Your task to perform on an android device: open app "Microsoft Authenticator" Image 0: 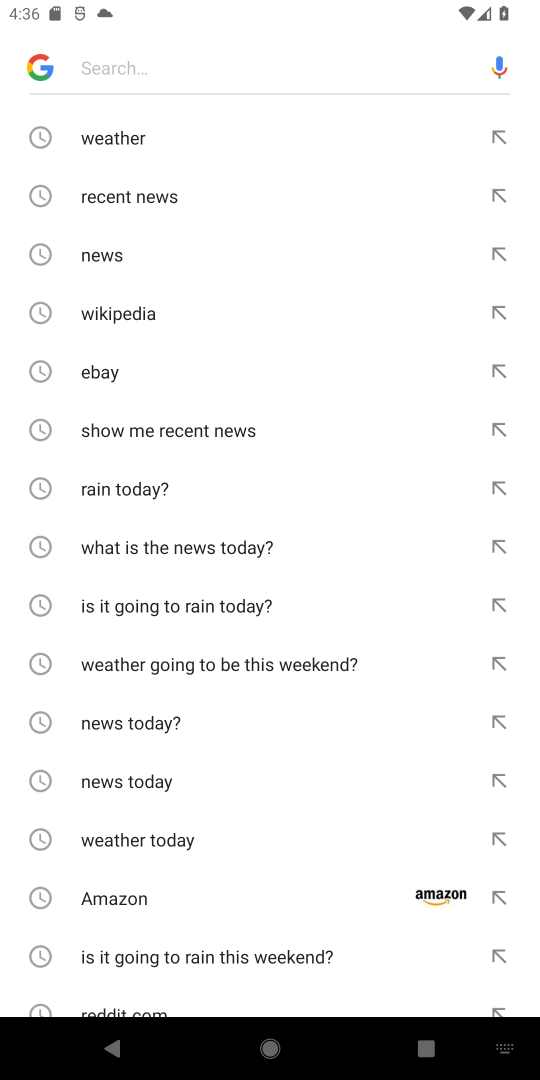
Step 0: press home button
Your task to perform on an android device: open app "Microsoft Authenticator" Image 1: 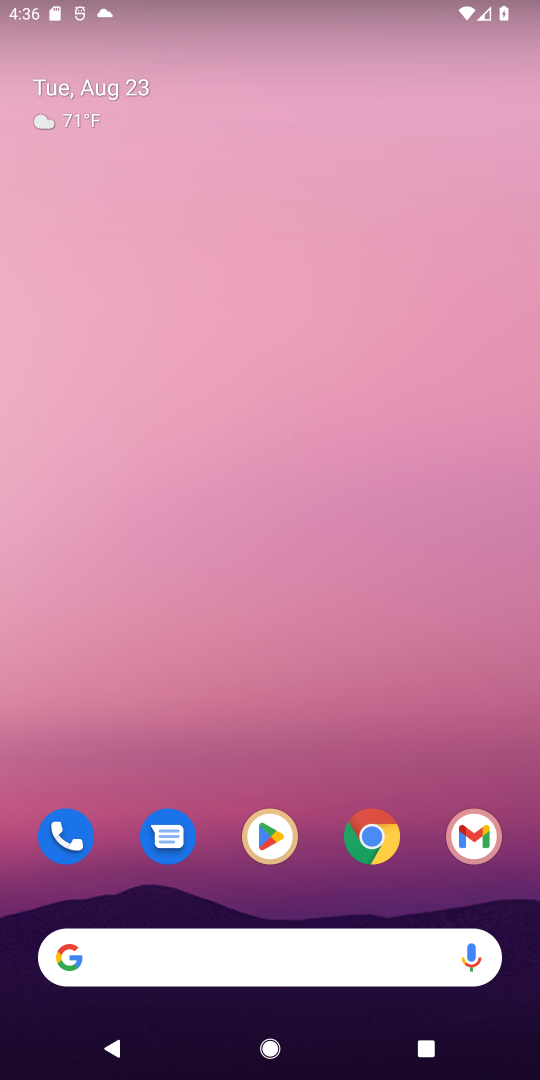
Step 1: click (276, 836)
Your task to perform on an android device: open app "Microsoft Authenticator" Image 2: 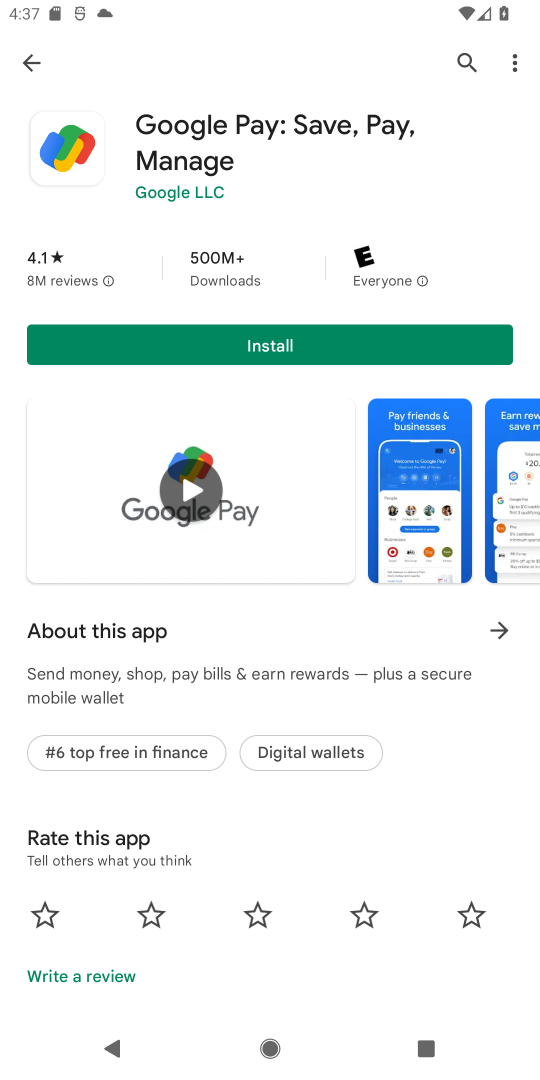
Step 2: click (468, 64)
Your task to perform on an android device: open app "Microsoft Authenticator" Image 3: 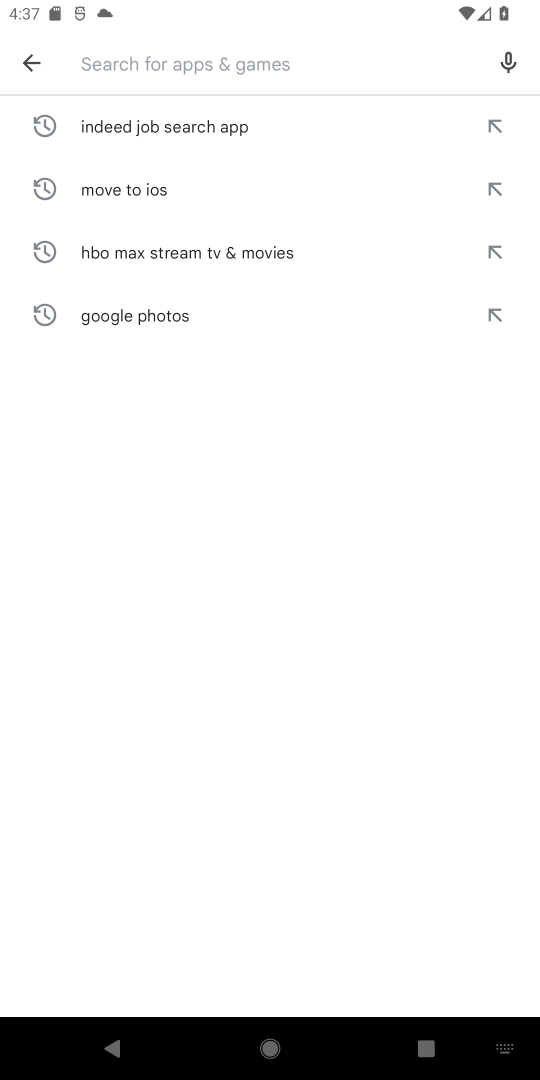
Step 3: type "Microsoft Authenticator"
Your task to perform on an android device: open app "Microsoft Authenticator" Image 4: 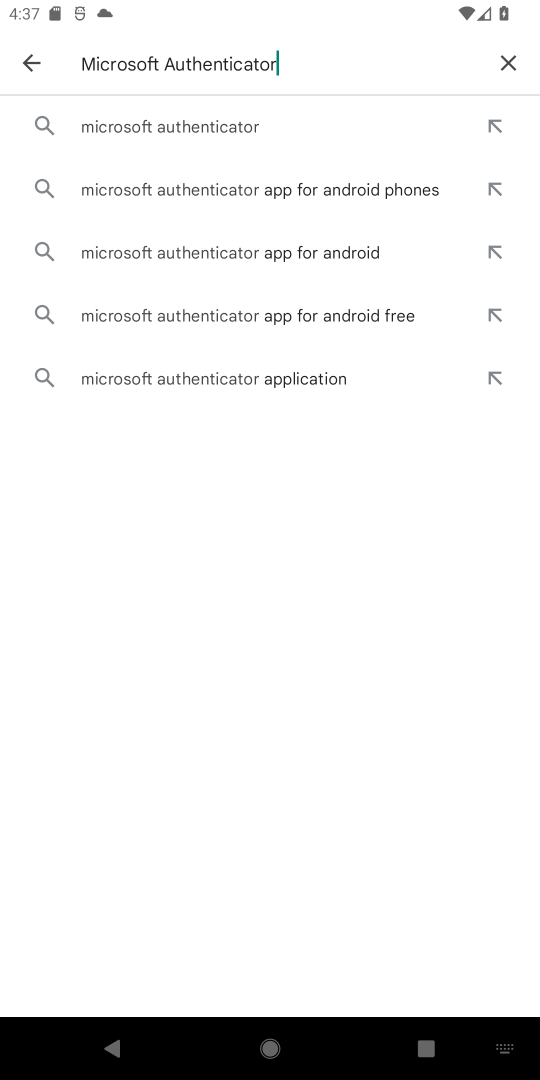
Step 4: click (107, 122)
Your task to perform on an android device: open app "Microsoft Authenticator" Image 5: 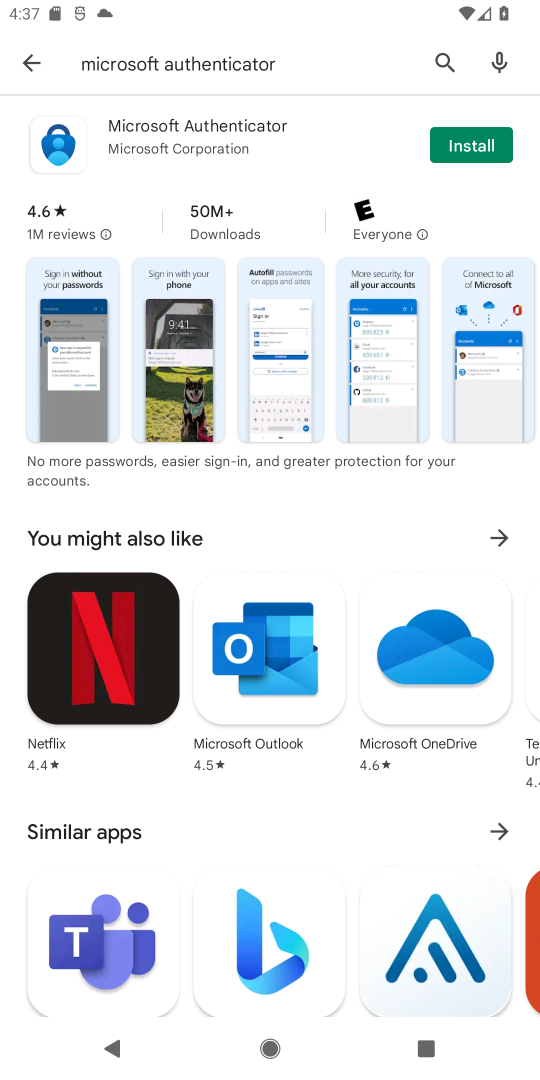
Step 5: task complete